Your task to perform on an android device: Check the weather Image 0: 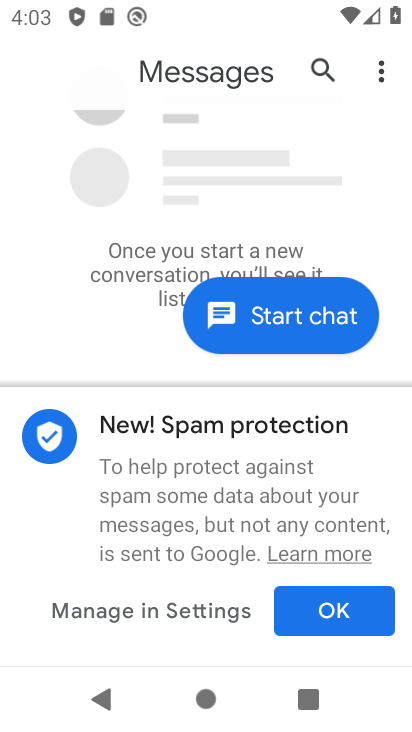
Step 0: drag from (352, 624) to (226, 240)
Your task to perform on an android device: Check the weather Image 1: 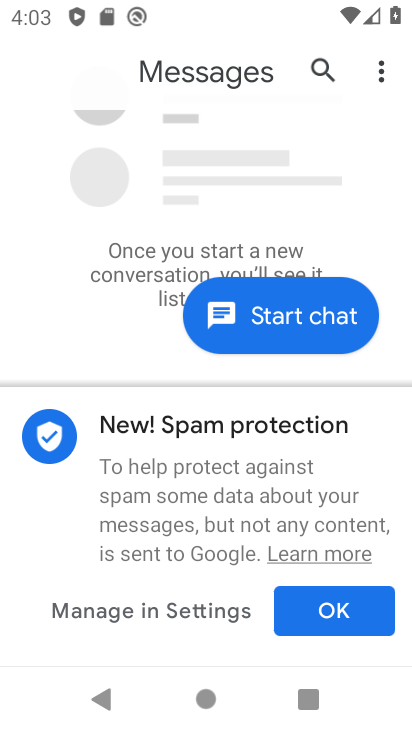
Step 1: click (286, 293)
Your task to perform on an android device: Check the weather Image 2: 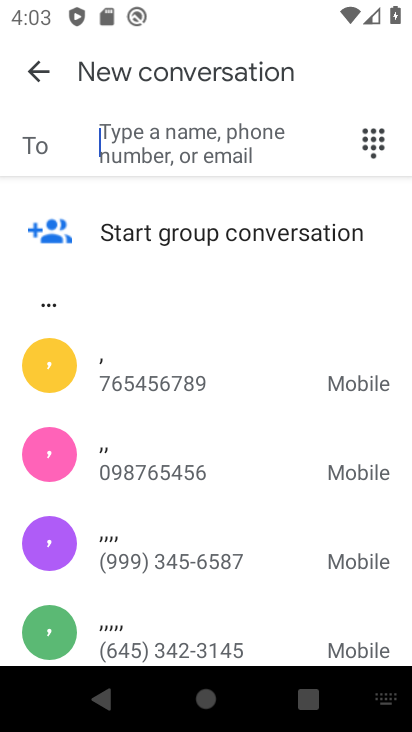
Step 2: task complete